Your task to perform on an android device: Open Youtube and go to "Your channel" Image 0: 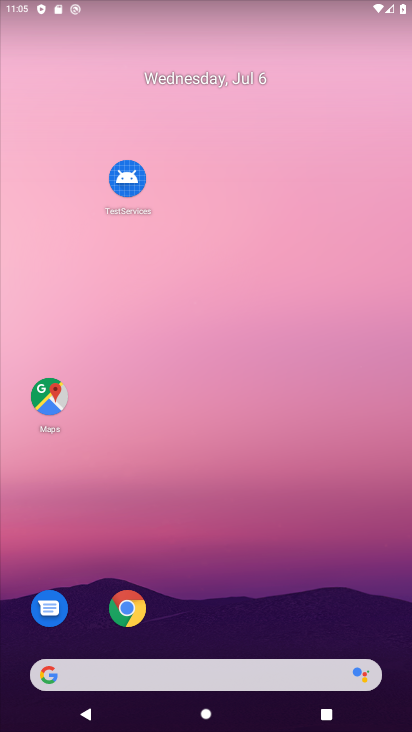
Step 0: drag from (255, 722) to (101, 229)
Your task to perform on an android device: Open Youtube and go to "Your channel" Image 1: 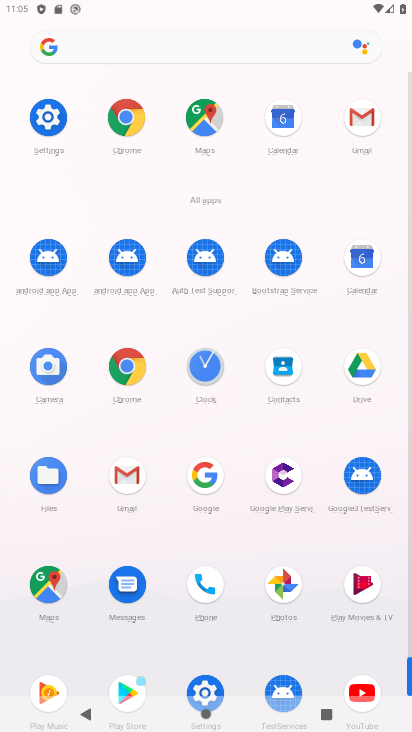
Step 1: drag from (258, 564) to (169, 162)
Your task to perform on an android device: Open Youtube and go to "Your channel" Image 2: 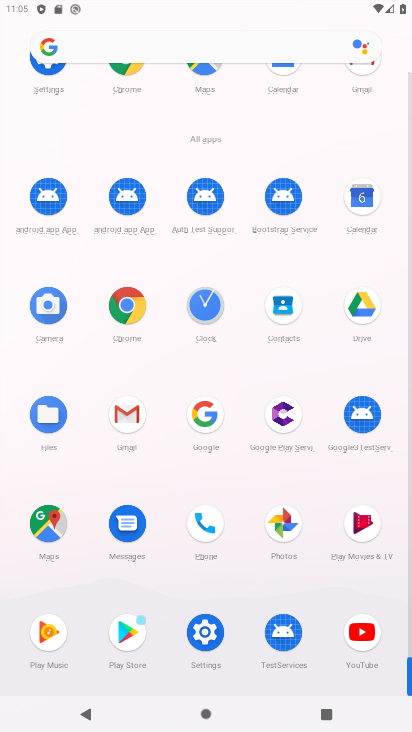
Step 2: click (354, 624)
Your task to perform on an android device: Open Youtube and go to "Your channel" Image 3: 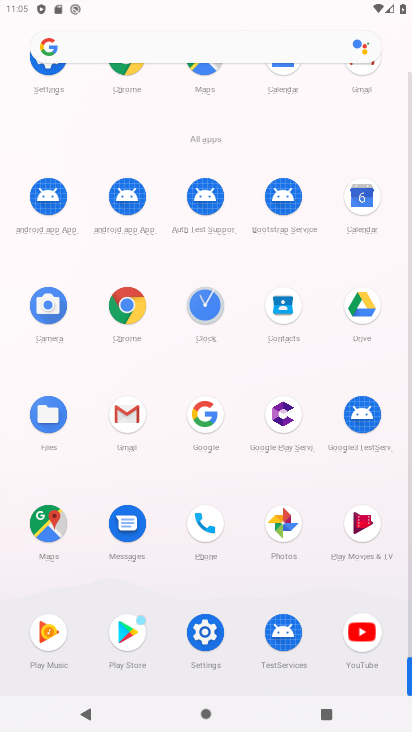
Step 3: click (366, 628)
Your task to perform on an android device: Open Youtube and go to "Your channel" Image 4: 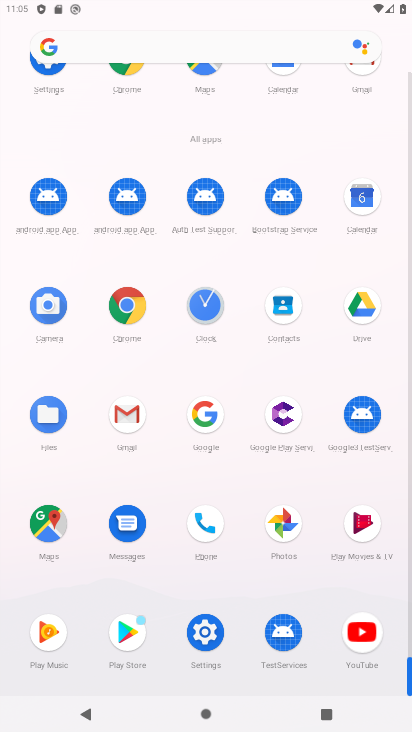
Step 4: click (366, 628)
Your task to perform on an android device: Open Youtube and go to "Your channel" Image 5: 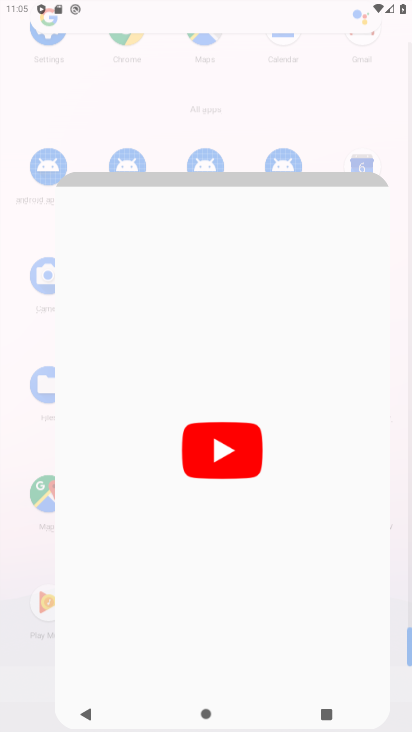
Step 5: click (365, 629)
Your task to perform on an android device: Open Youtube and go to "Your channel" Image 6: 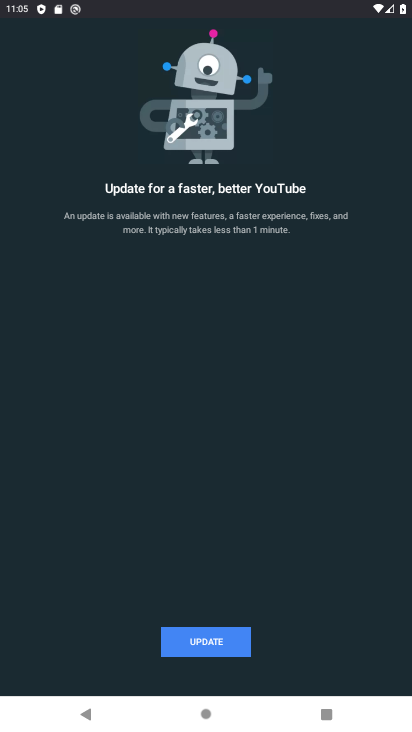
Step 6: click (200, 352)
Your task to perform on an android device: Open Youtube and go to "Your channel" Image 7: 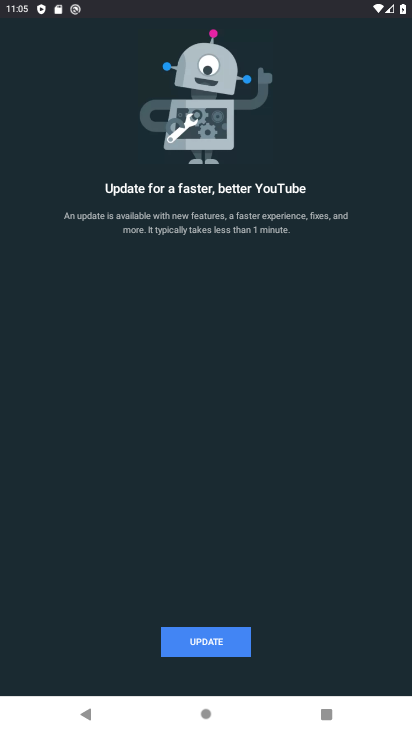
Step 7: task complete